Your task to perform on an android device: Open Youtube and go to "Your channel" Image 0: 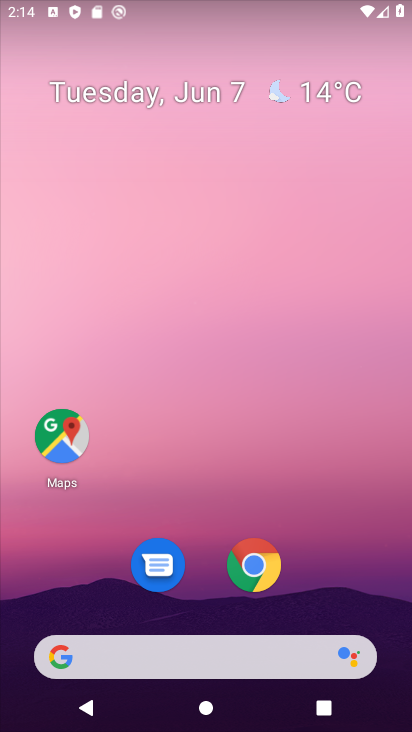
Step 0: drag from (201, 652) to (259, 8)
Your task to perform on an android device: Open Youtube and go to "Your channel" Image 1: 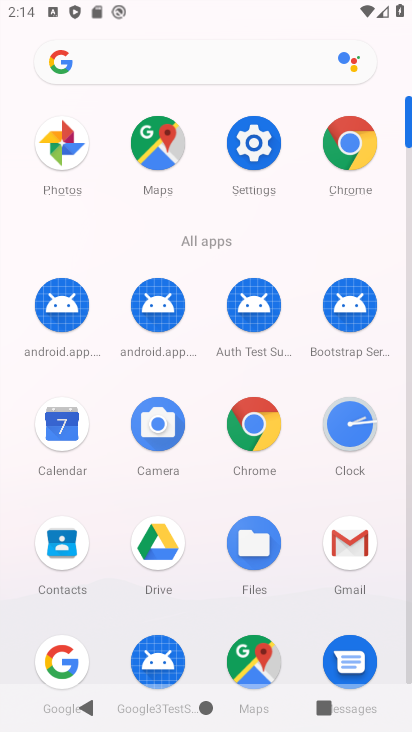
Step 1: drag from (304, 635) to (299, 76)
Your task to perform on an android device: Open Youtube and go to "Your channel" Image 2: 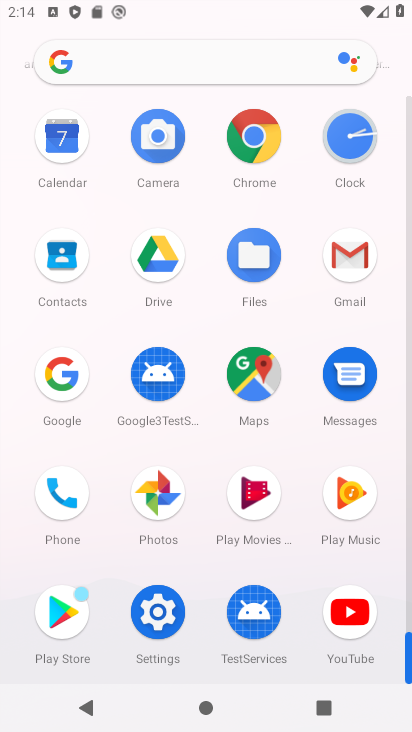
Step 2: click (343, 610)
Your task to perform on an android device: Open Youtube and go to "Your channel" Image 3: 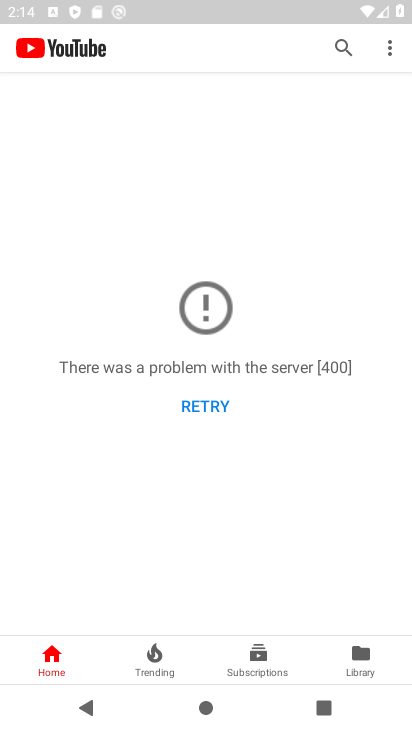
Step 3: click (384, 43)
Your task to perform on an android device: Open Youtube and go to "Your channel" Image 4: 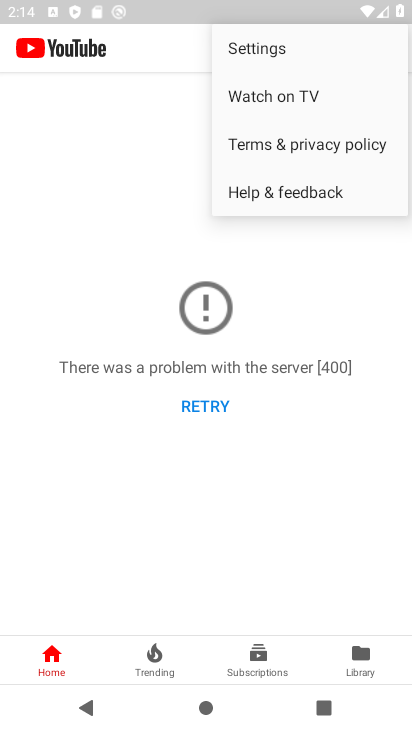
Step 4: click (357, 665)
Your task to perform on an android device: Open Youtube and go to "Your channel" Image 5: 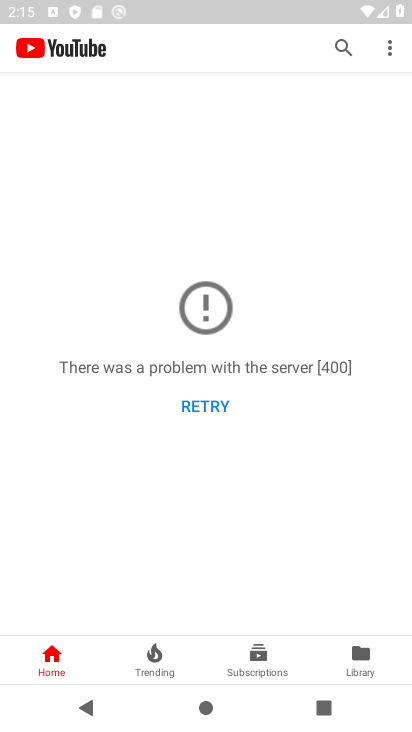
Step 5: click (360, 658)
Your task to perform on an android device: Open Youtube and go to "Your channel" Image 6: 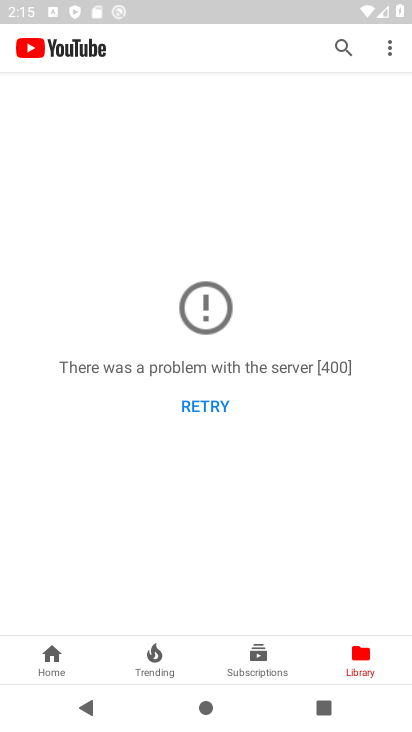
Step 6: click (398, 52)
Your task to perform on an android device: Open Youtube and go to "Your channel" Image 7: 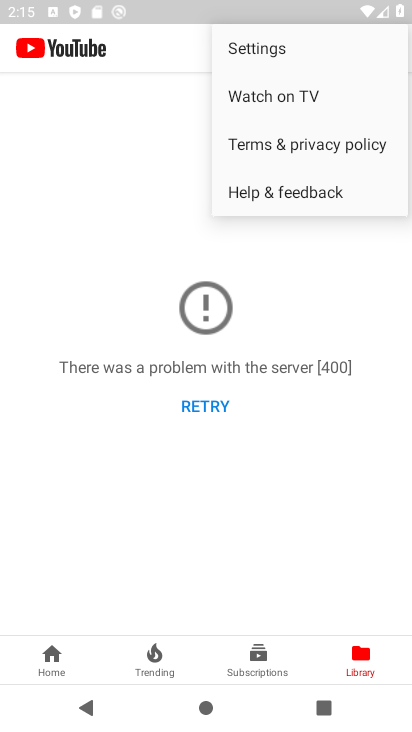
Step 7: click (308, 275)
Your task to perform on an android device: Open Youtube and go to "Your channel" Image 8: 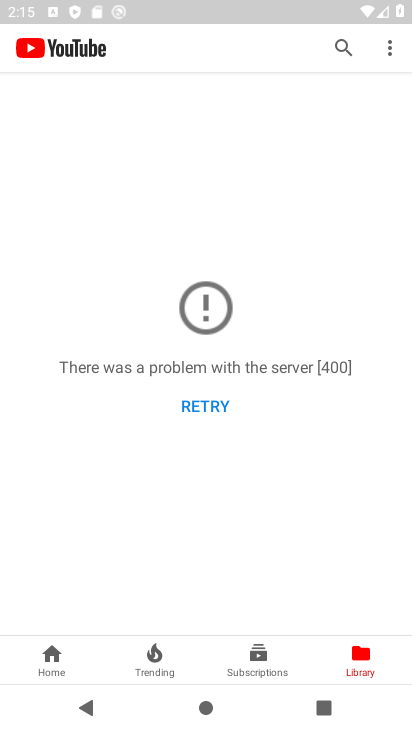
Step 8: task complete